Your task to perform on an android device: turn off improve location accuracy Image 0: 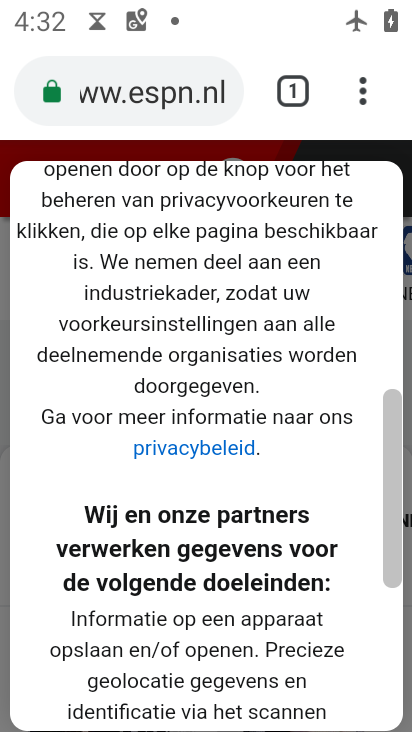
Step 0: press home button
Your task to perform on an android device: turn off improve location accuracy Image 1: 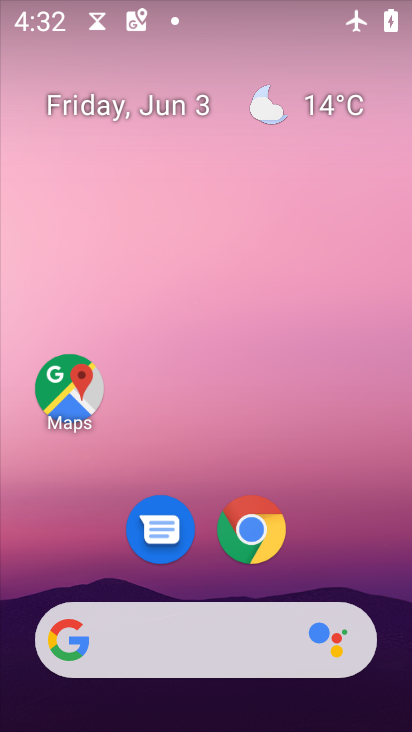
Step 1: press home button
Your task to perform on an android device: turn off improve location accuracy Image 2: 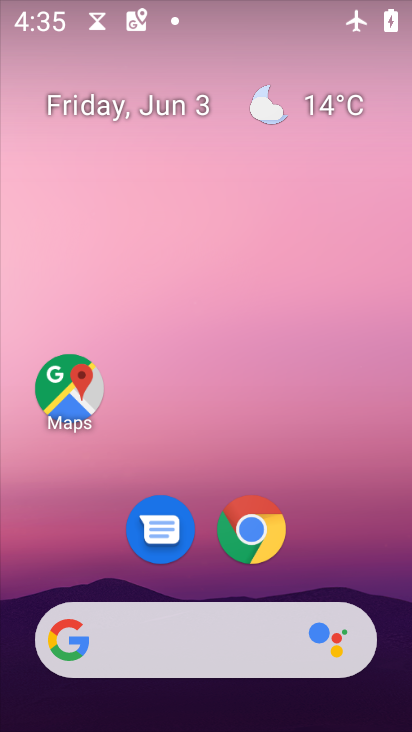
Step 2: drag from (358, 533) to (282, 0)
Your task to perform on an android device: turn off improve location accuracy Image 3: 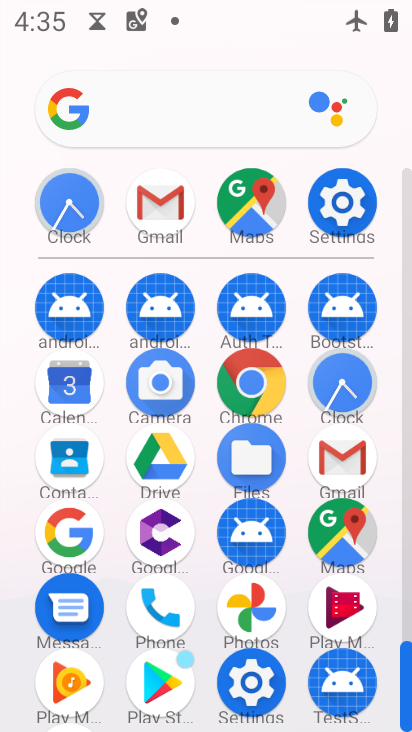
Step 3: click (358, 210)
Your task to perform on an android device: turn off improve location accuracy Image 4: 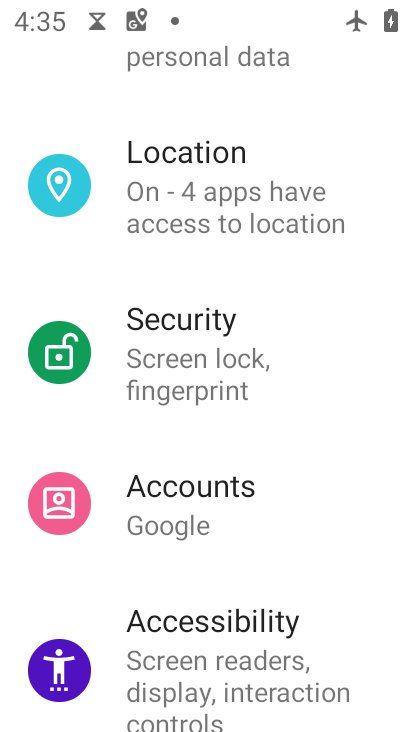
Step 4: click (184, 202)
Your task to perform on an android device: turn off improve location accuracy Image 5: 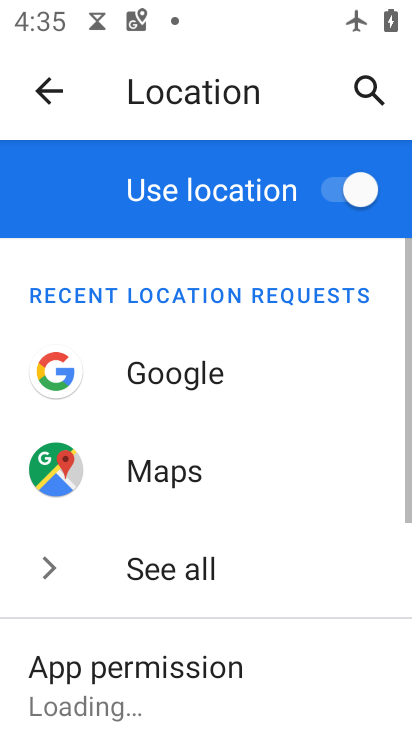
Step 5: drag from (294, 558) to (311, 205)
Your task to perform on an android device: turn off improve location accuracy Image 6: 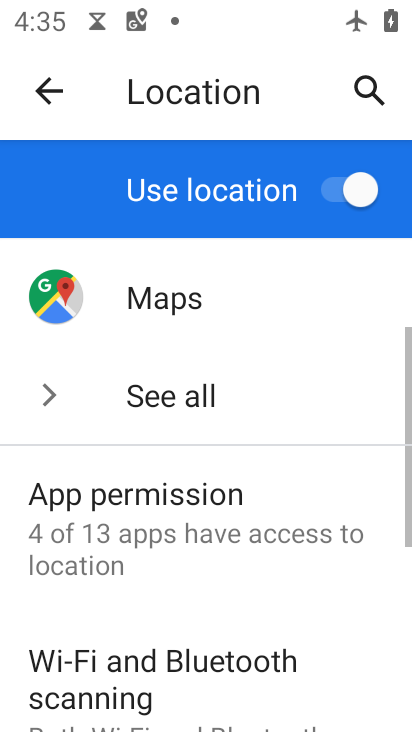
Step 6: drag from (295, 629) to (244, 241)
Your task to perform on an android device: turn off improve location accuracy Image 7: 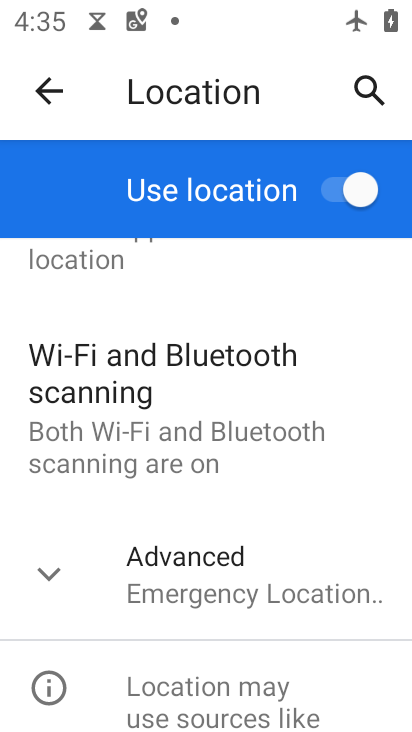
Step 7: click (233, 579)
Your task to perform on an android device: turn off improve location accuracy Image 8: 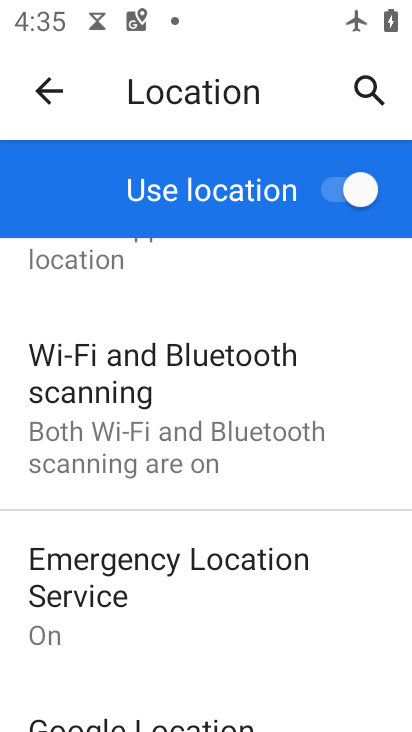
Step 8: drag from (246, 566) to (278, 298)
Your task to perform on an android device: turn off improve location accuracy Image 9: 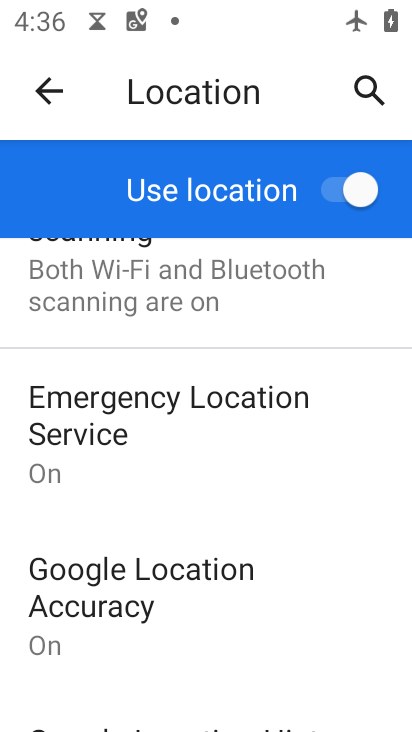
Step 9: drag from (156, 655) to (206, 309)
Your task to perform on an android device: turn off improve location accuracy Image 10: 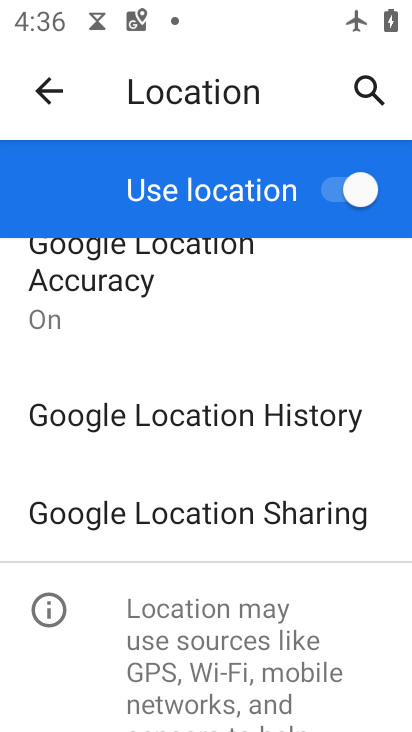
Step 10: click (120, 282)
Your task to perform on an android device: turn off improve location accuracy Image 11: 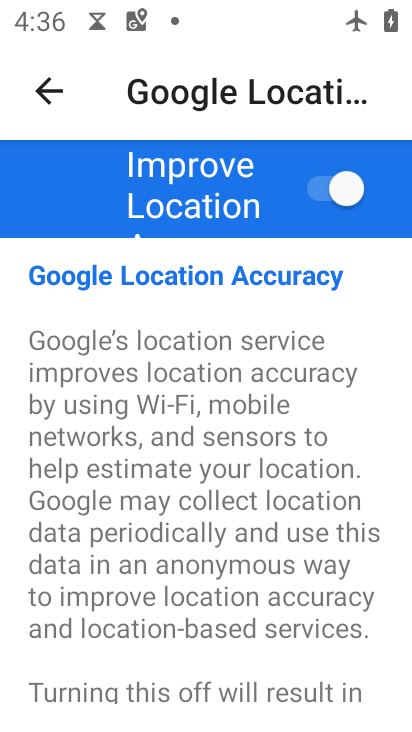
Step 11: click (334, 204)
Your task to perform on an android device: turn off improve location accuracy Image 12: 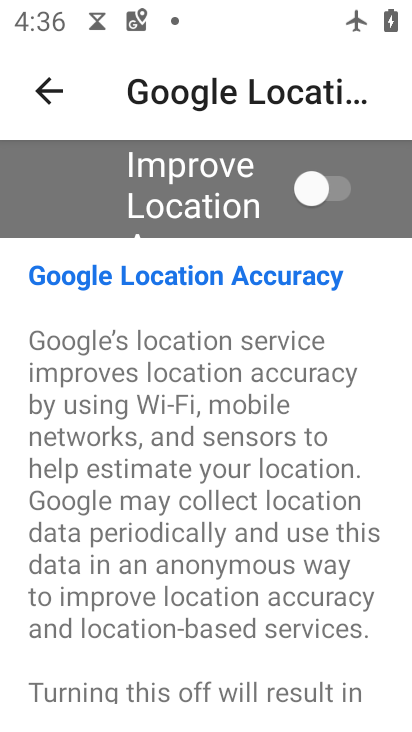
Step 12: task complete